Your task to perform on an android device: delete browsing data in the chrome app Image 0: 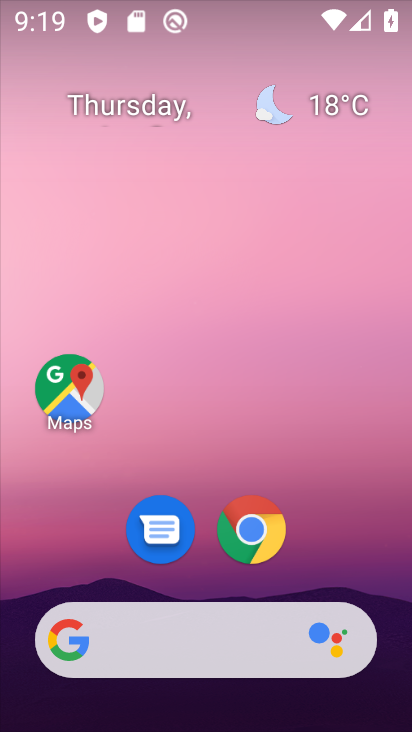
Step 0: click (245, 526)
Your task to perform on an android device: delete browsing data in the chrome app Image 1: 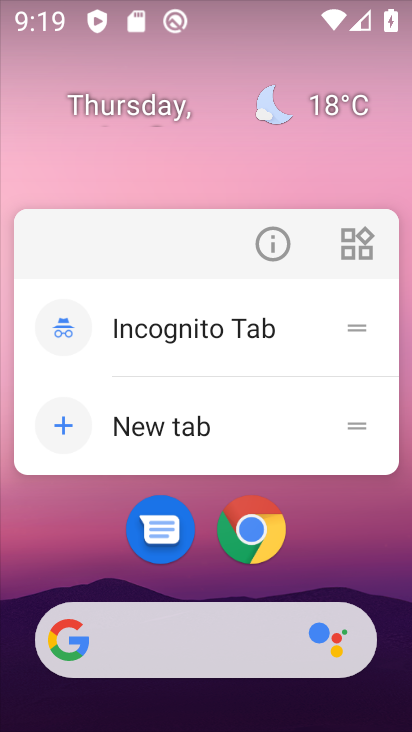
Step 1: click (251, 524)
Your task to perform on an android device: delete browsing data in the chrome app Image 2: 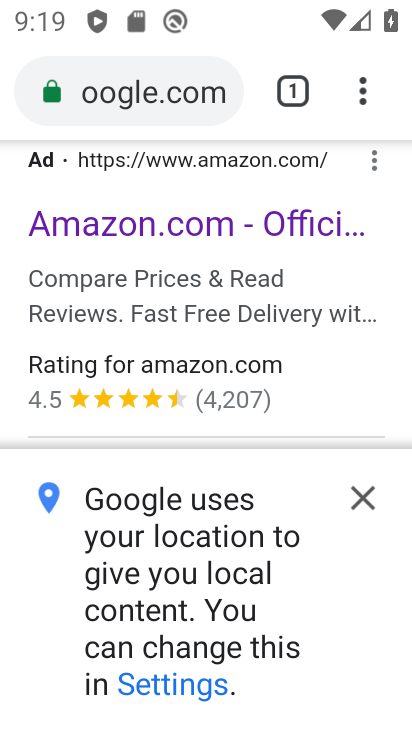
Step 2: click (363, 87)
Your task to perform on an android device: delete browsing data in the chrome app Image 3: 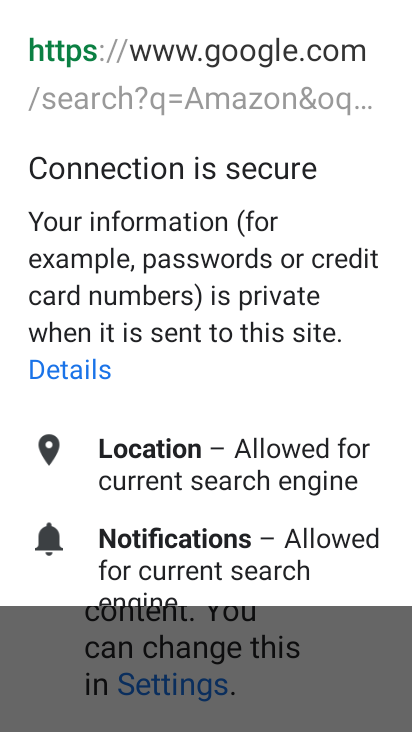
Step 3: click (363, 87)
Your task to perform on an android device: delete browsing data in the chrome app Image 4: 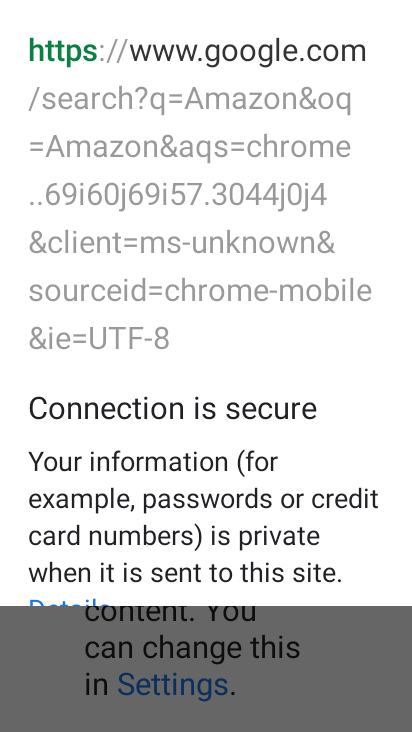
Step 4: press back button
Your task to perform on an android device: delete browsing data in the chrome app Image 5: 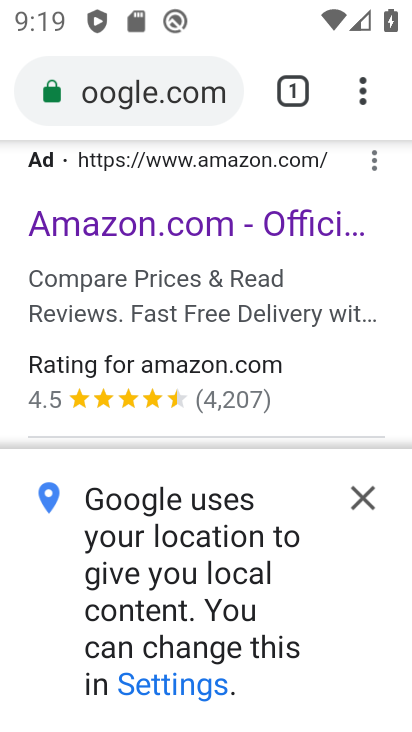
Step 5: click (356, 92)
Your task to perform on an android device: delete browsing data in the chrome app Image 6: 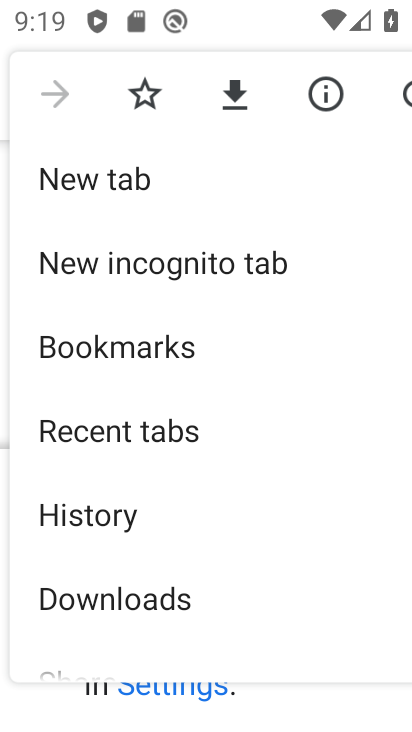
Step 6: drag from (309, 625) to (298, 272)
Your task to perform on an android device: delete browsing data in the chrome app Image 7: 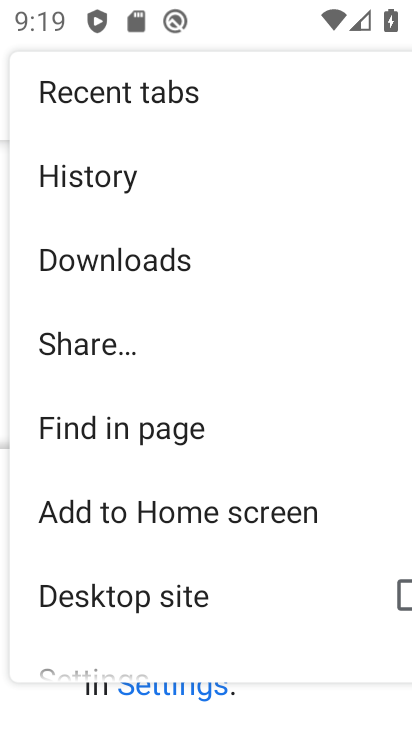
Step 7: click (102, 170)
Your task to perform on an android device: delete browsing data in the chrome app Image 8: 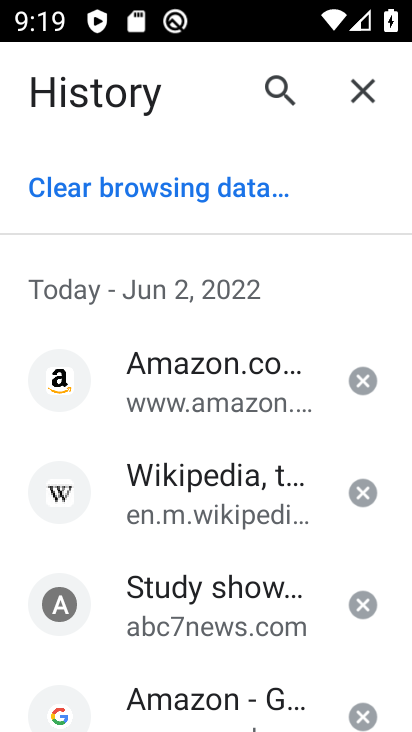
Step 8: click (159, 177)
Your task to perform on an android device: delete browsing data in the chrome app Image 9: 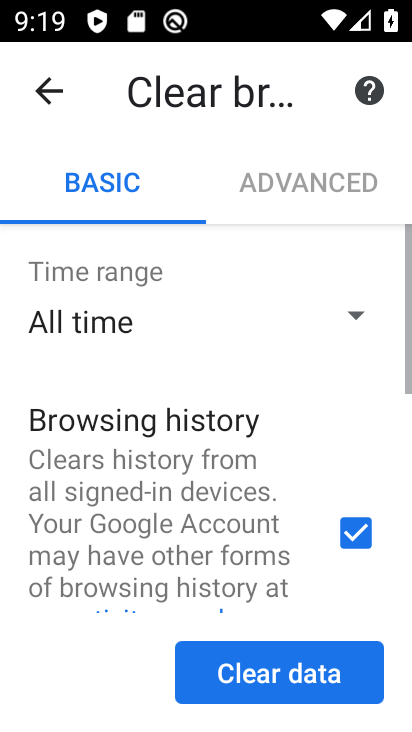
Step 9: click (300, 654)
Your task to perform on an android device: delete browsing data in the chrome app Image 10: 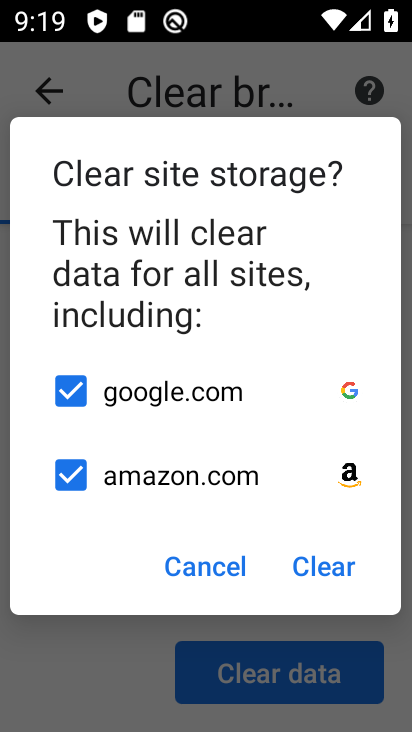
Step 10: click (323, 564)
Your task to perform on an android device: delete browsing data in the chrome app Image 11: 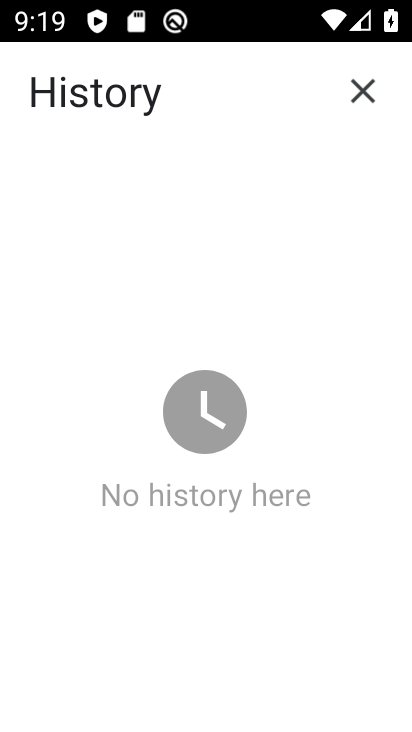
Step 11: task complete